Your task to perform on an android device: Open the web browser Image 0: 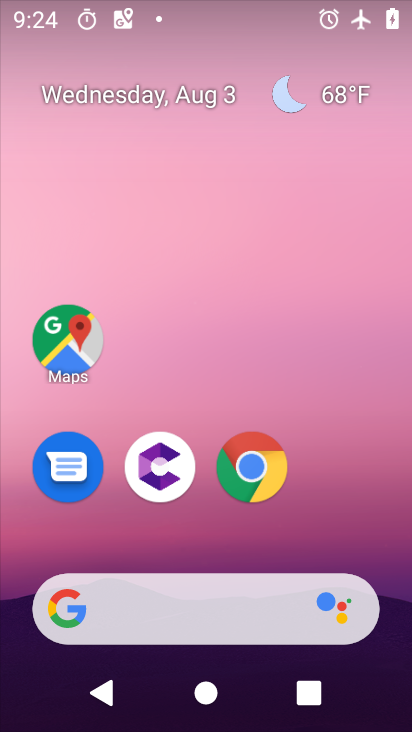
Step 0: drag from (361, 488) to (347, 7)
Your task to perform on an android device: Open the web browser Image 1: 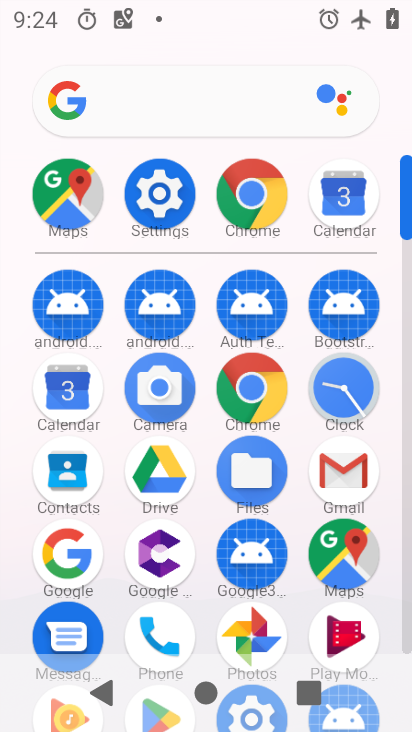
Step 1: click (257, 385)
Your task to perform on an android device: Open the web browser Image 2: 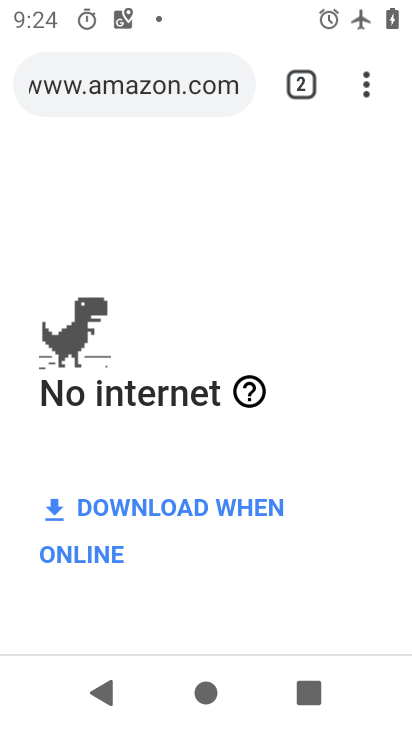
Step 2: task complete